Your task to perform on an android device: What is the recent news? Image 0: 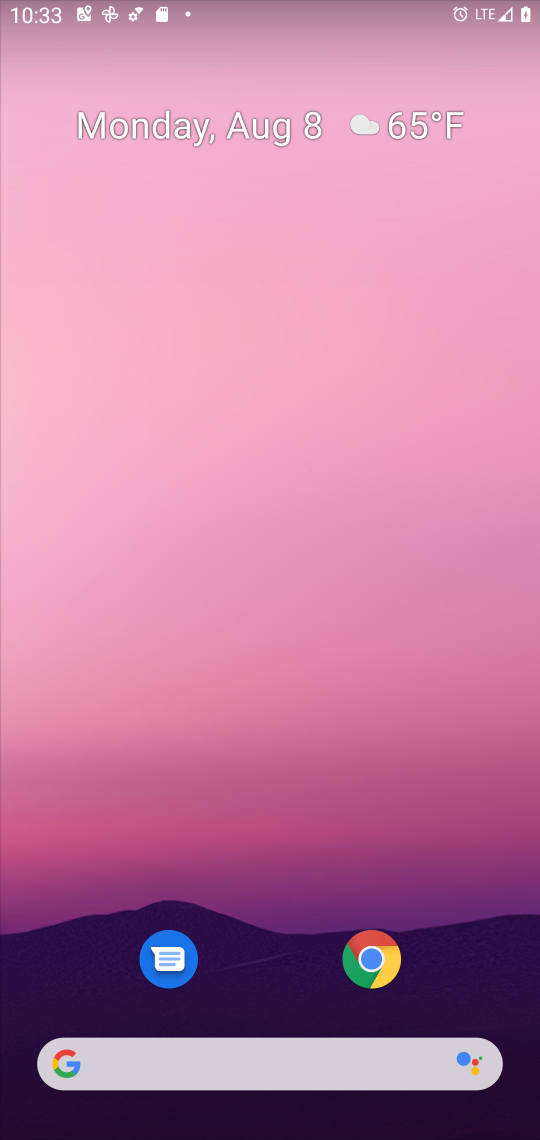
Step 0: drag from (493, 900) to (274, 0)
Your task to perform on an android device: What is the recent news? Image 1: 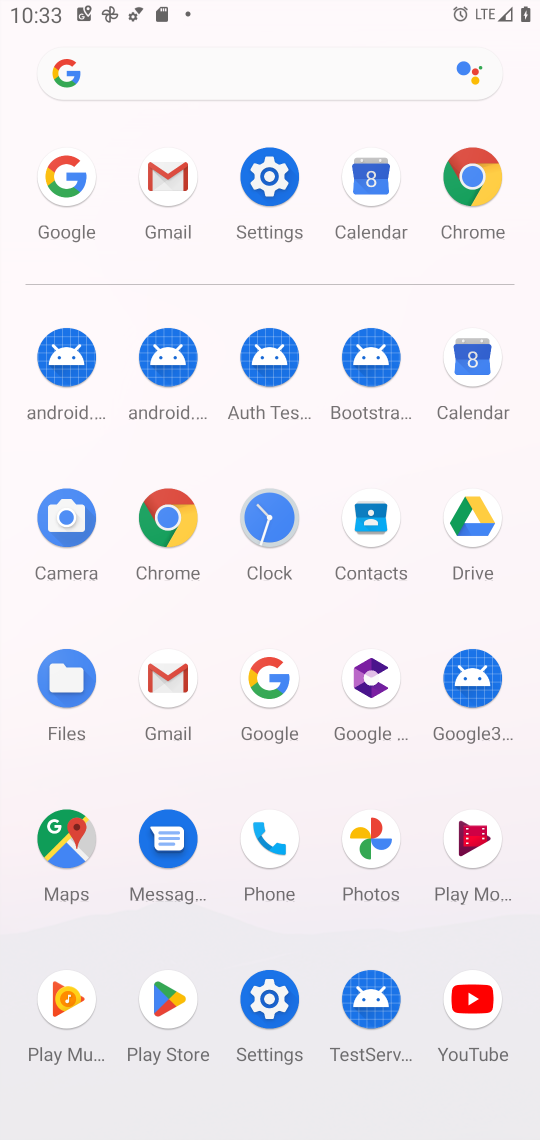
Step 1: click (270, 699)
Your task to perform on an android device: What is the recent news? Image 2: 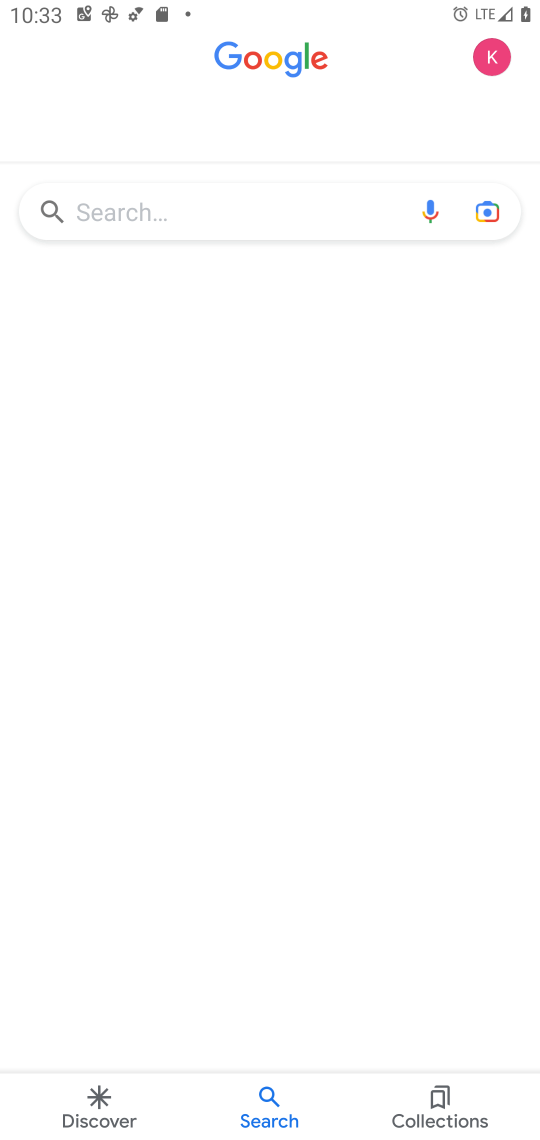
Step 2: click (80, 203)
Your task to perform on an android device: What is the recent news? Image 3: 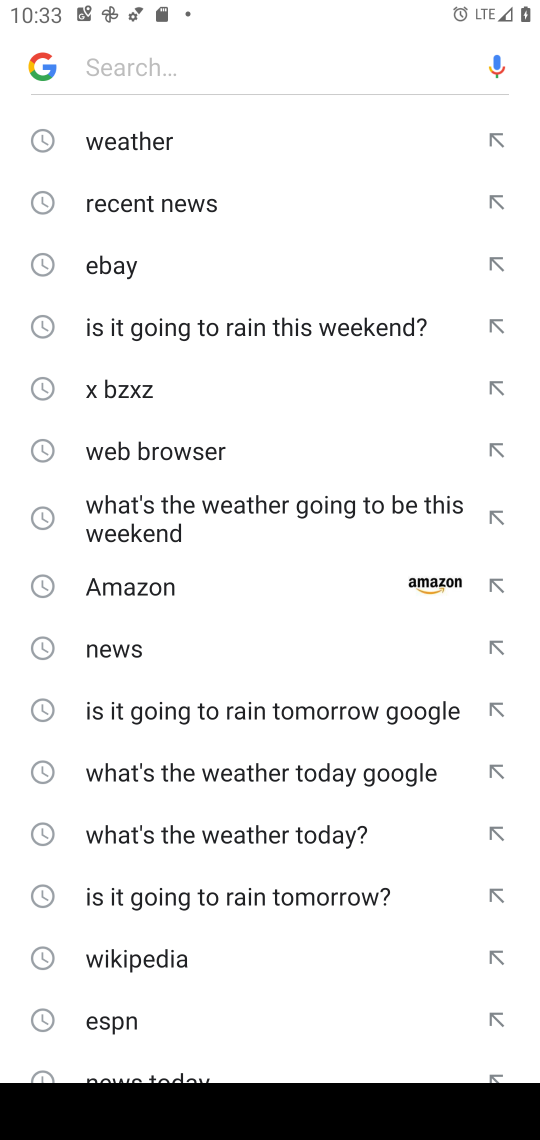
Step 3: click (150, 222)
Your task to perform on an android device: What is the recent news? Image 4: 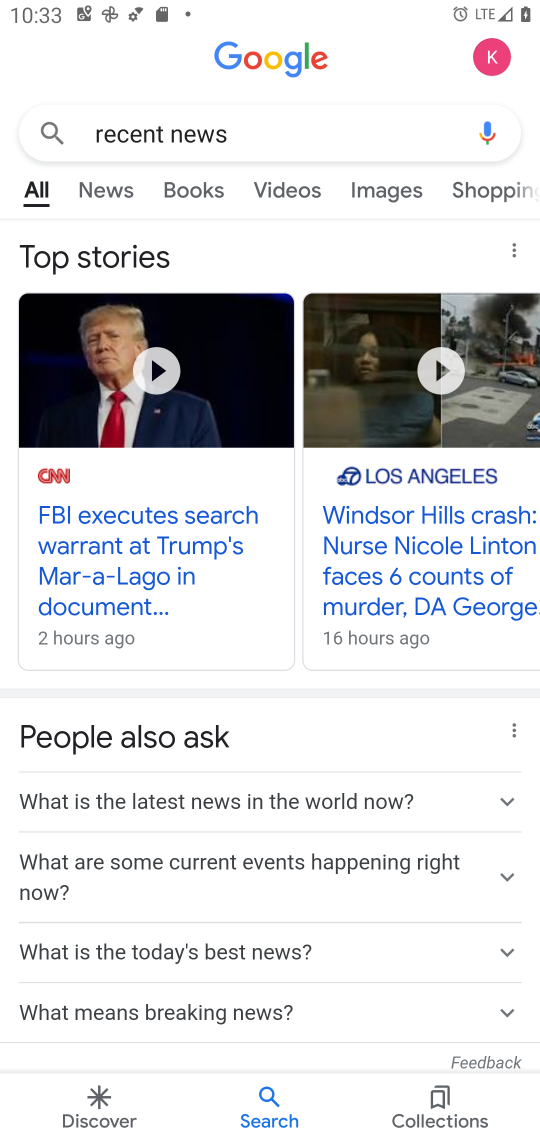
Step 4: task complete